Your task to perform on an android device: make emails show in primary in the gmail app Image 0: 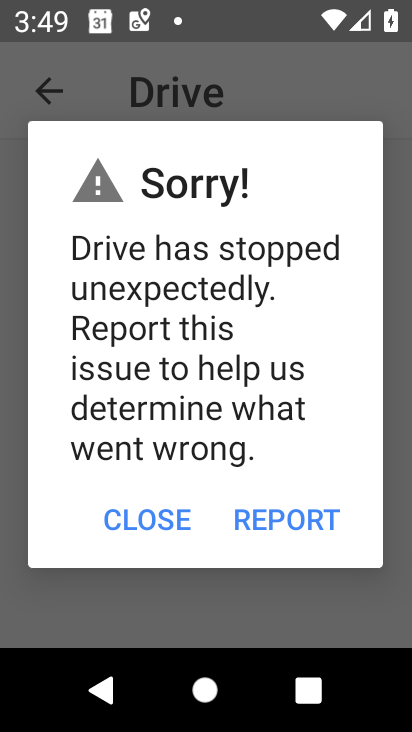
Step 0: press home button
Your task to perform on an android device: make emails show in primary in the gmail app Image 1: 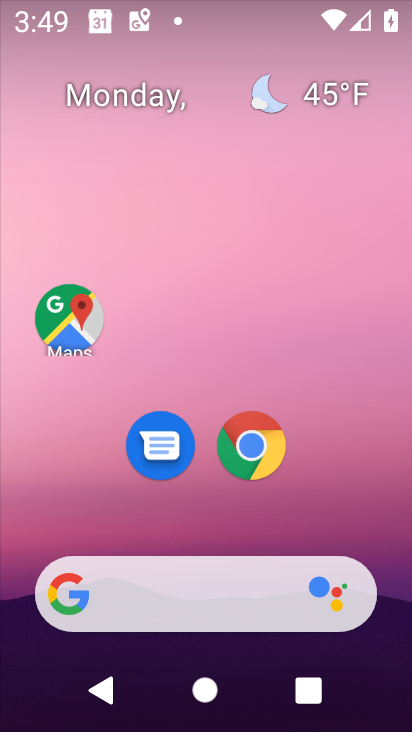
Step 1: drag from (314, 517) to (244, 5)
Your task to perform on an android device: make emails show in primary in the gmail app Image 2: 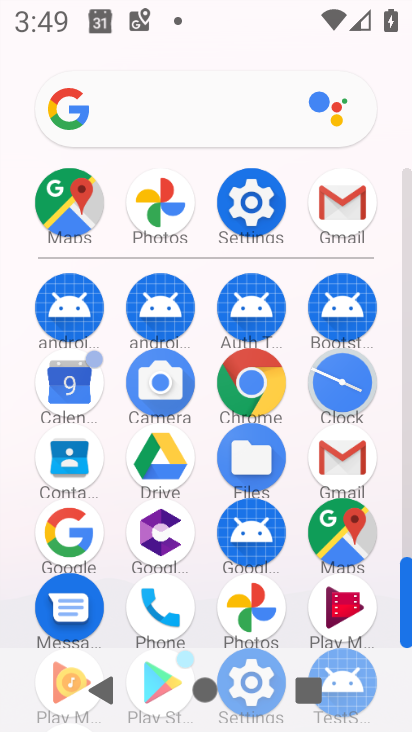
Step 2: click (345, 462)
Your task to perform on an android device: make emails show in primary in the gmail app Image 3: 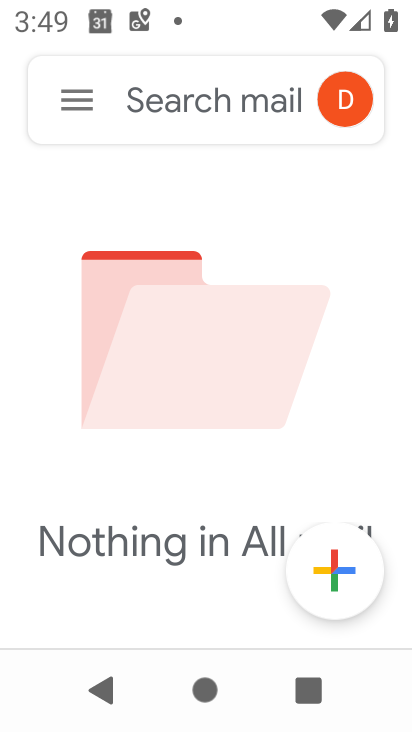
Step 3: click (54, 108)
Your task to perform on an android device: make emails show in primary in the gmail app Image 4: 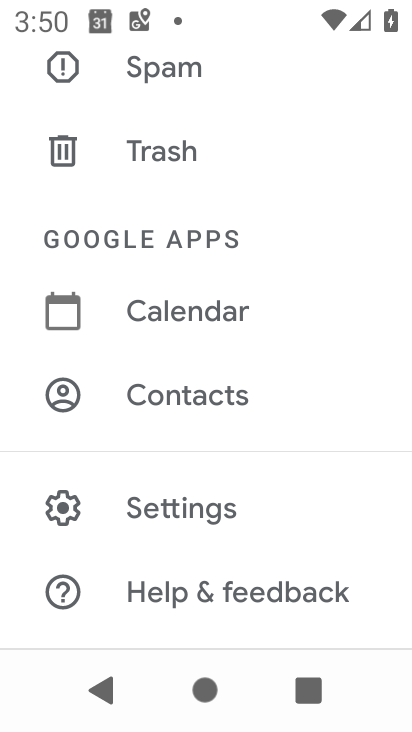
Step 4: click (251, 520)
Your task to perform on an android device: make emails show in primary in the gmail app Image 5: 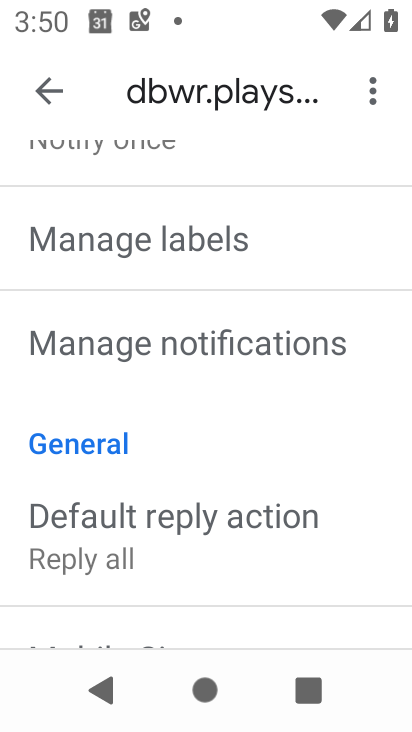
Step 5: drag from (168, 556) to (119, 307)
Your task to perform on an android device: make emails show in primary in the gmail app Image 6: 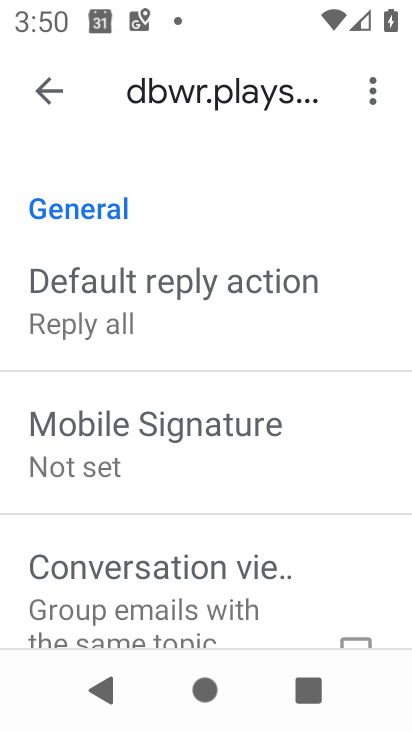
Step 6: drag from (101, 315) to (128, 680)
Your task to perform on an android device: make emails show in primary in the gmail app Image 7: 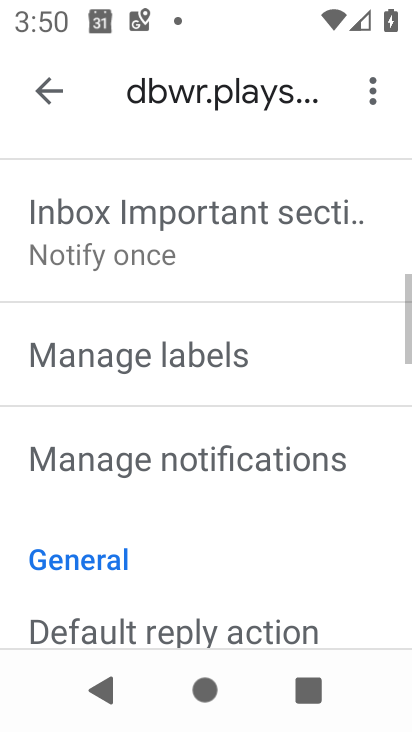
Step 7: drag from (117, 261) to (124, 620)
Your task to perform on an android device: make emails show in primary in the gmail app Image 8: 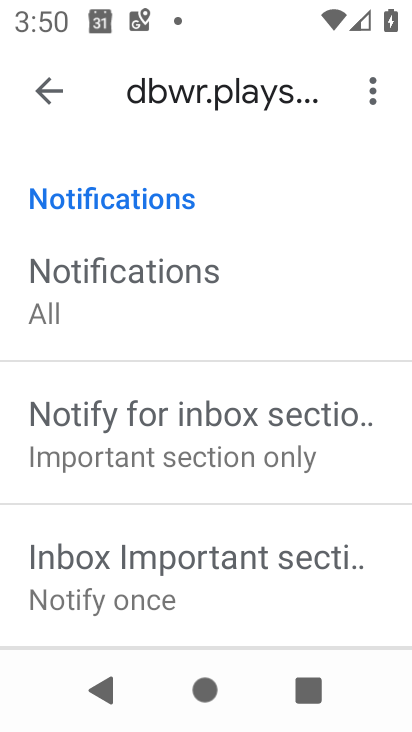
Step 8: drag from (102, 246) to (126, 700)
Your task to perform on an android device: make emails show in primary in the gmail app Image 9: 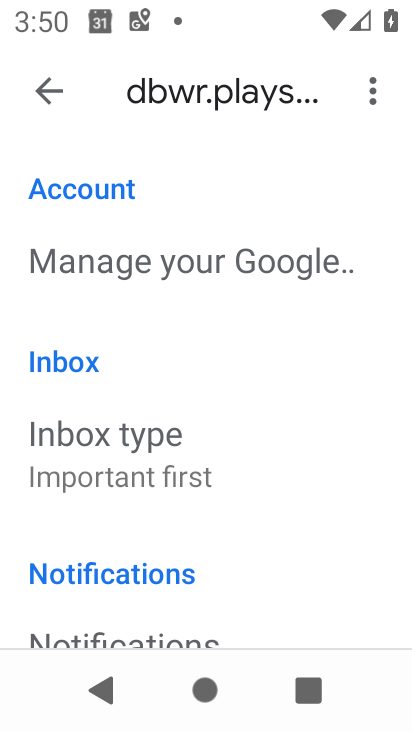
Step 9: click (147, 443)
Your task to perform on an android device: make emails show in primary in the gmail app Image 10: 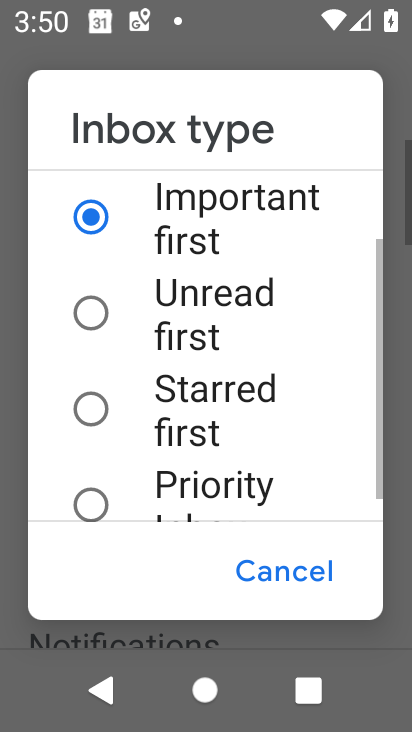
Step 10: drag from (172, 270) to (227, 484)
Your task to perform on an android device: make emails show in primary in the gmail app Image 11: 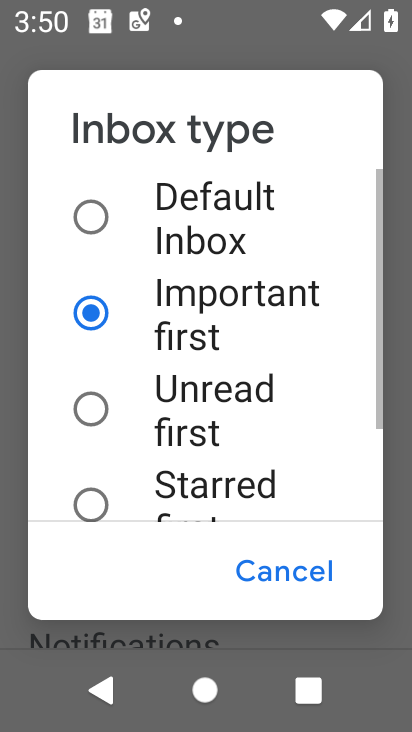
Step 11: click (212, 243)
Your task to perform on an android device: make emails show in primary in the gmail app Image 12: 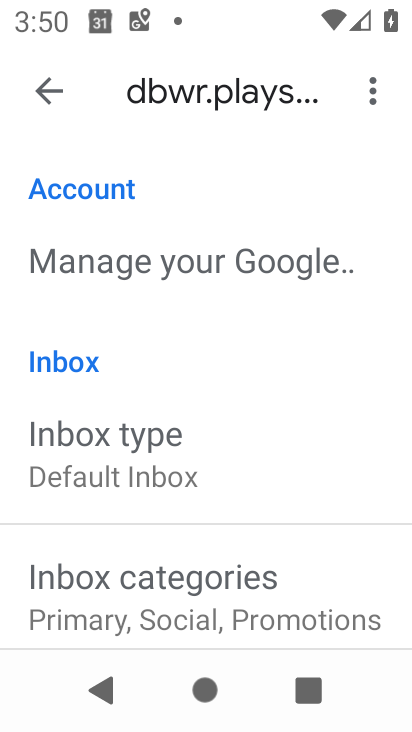
Step 12: task complete